Your task to perform on an android device: Show me popular games on the Play Store Image 0: 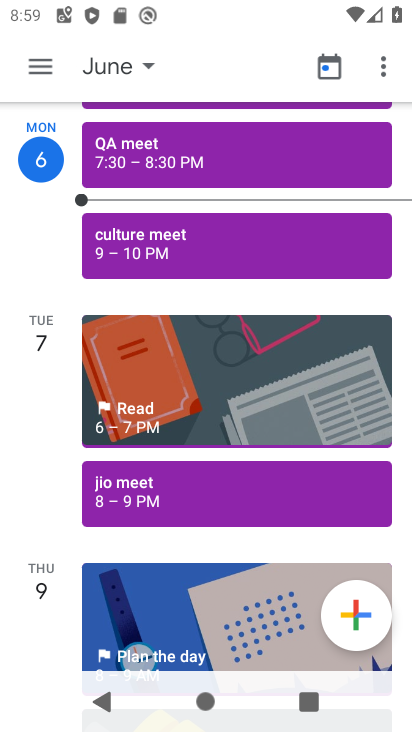
Step 0: press home button
Your task to perform on an android device: Show me popular games on the Play Store Image 1: 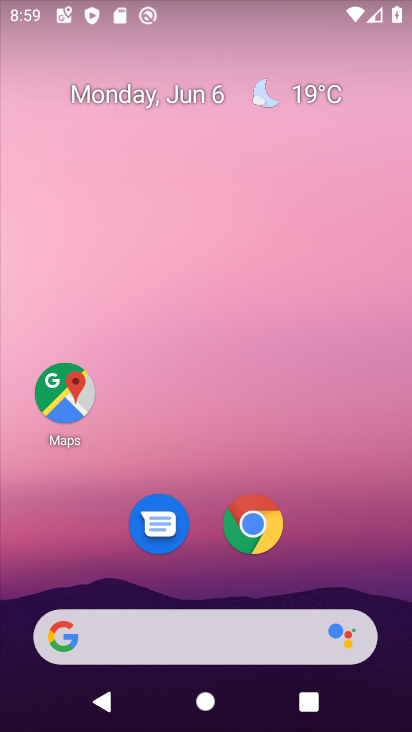
Step 1: drag from (205, 448) to (187, 3)
Your task to perform on an android device: Show me popular games on the Play Store Image 2: 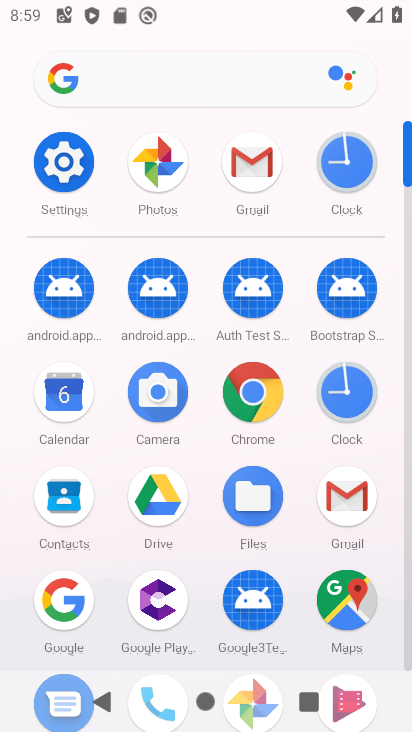
Step 2: drag from (191, 543) to (195, 179)
Your task to perform on an android device: Show me popular games on the Play Store Image 3: 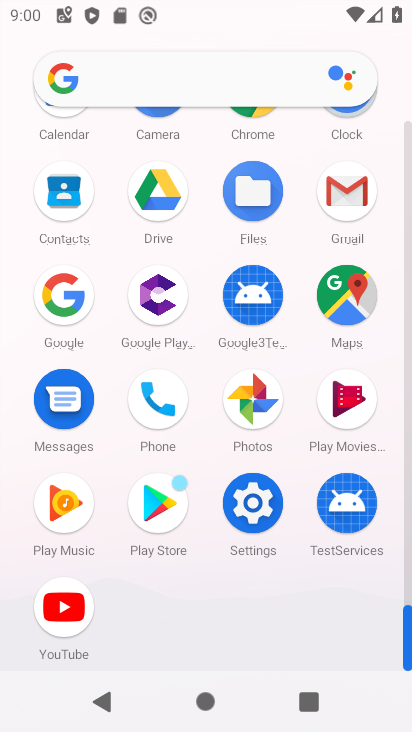
Step 3: click (157, 508)
Your task to perform on an android device: Show me popular games on the Play Store Image 4: 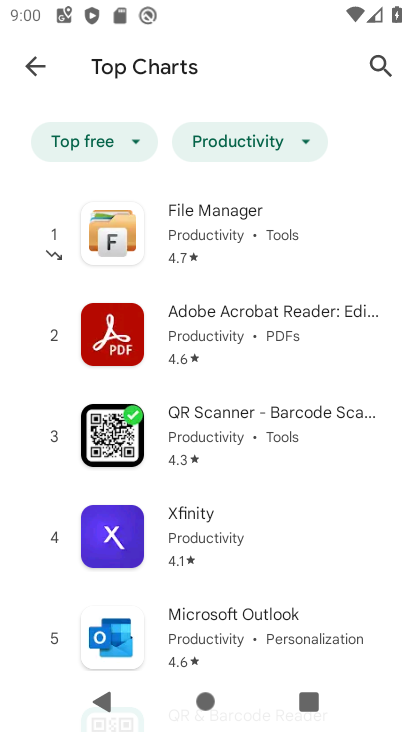
Step 4: click (30, 67)
Your task to perform on an android device: Show me popular games on the Play Store Image 5: 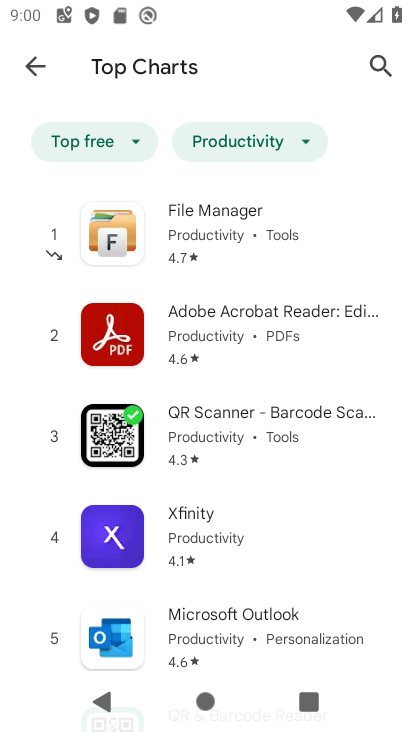
Step 5: click (30, 62)
Your task to perform on an android device: Show me popular games on the Play Store Image 6: 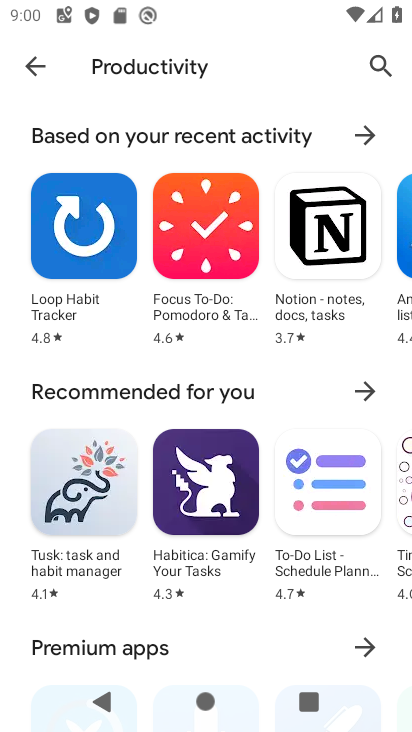
Step 6: click (30, 62)
Your task to perform on an android device: Show me popular games on the Play Store Image 7: 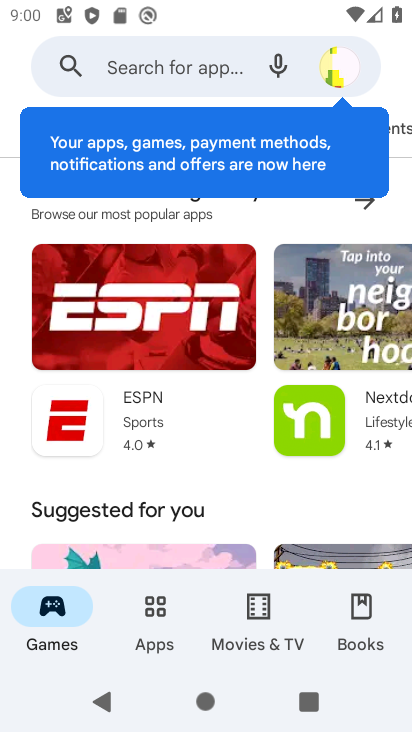
Step 7: task complete